Your task to perform on an android device: turn smart compose on in the gmail app Image 0: 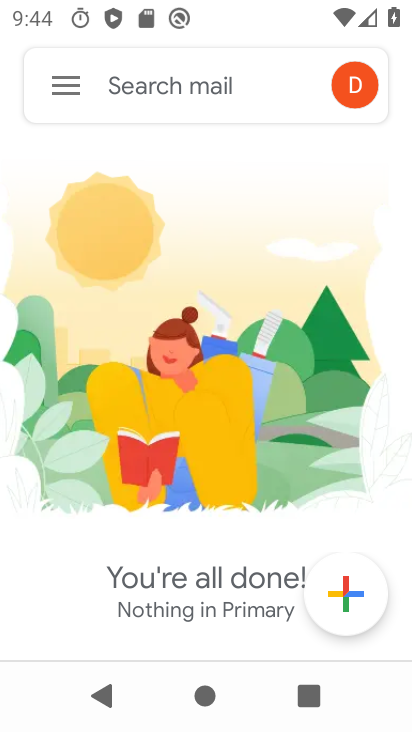
Step 0: drag from (223, 446) to (294, 105)
Your task to perform on an android device: turn smart compose on in the gmail app Image 1: 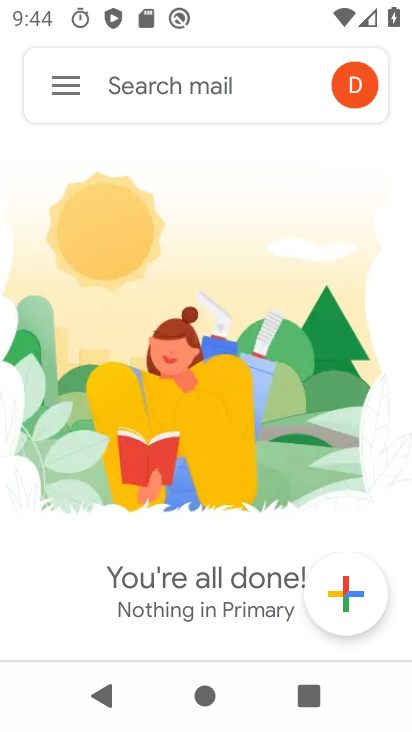
Step 1: drag from (284, 378) to (198, 601)
Your task to perform on an android device: turn smart compose on in the gmail app Image 2: 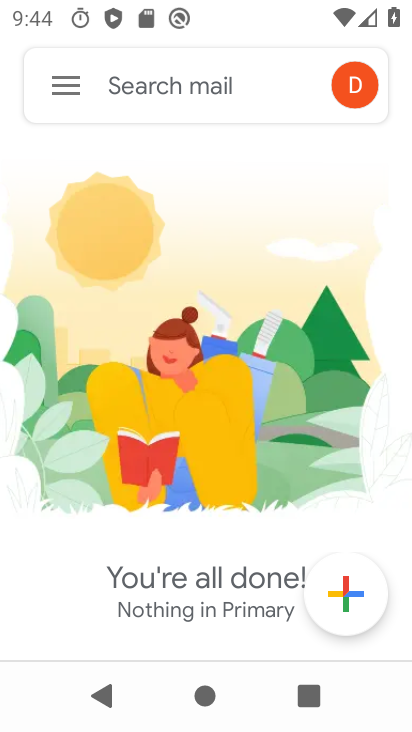
Step 2: click (58, 93)
Your task to perform on an android device: turn smart compose on in the gmail app Image 3: 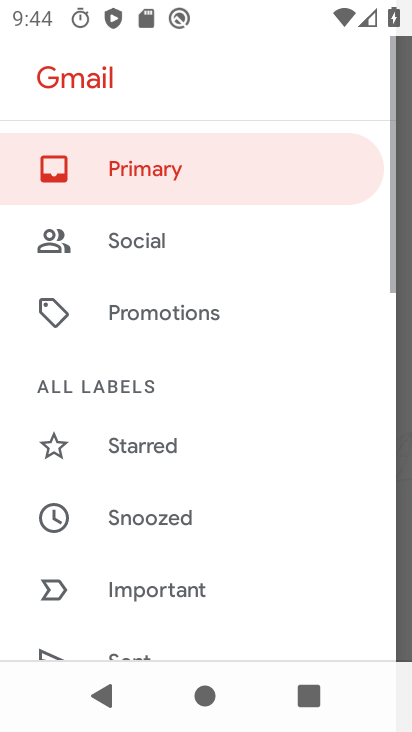
Step 3: drag from (203, 536) to (263, 0)
Your task to perform on an android device: turn smart compose on in the gmail app Image 4: 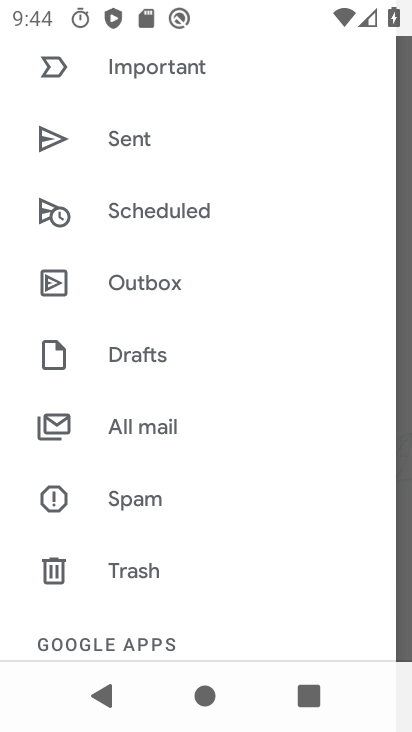
Step 4: drag from (145, 572) to (311, 121)
Your task to perform on an android device: turn smart compose on in the gmail app Image 5: 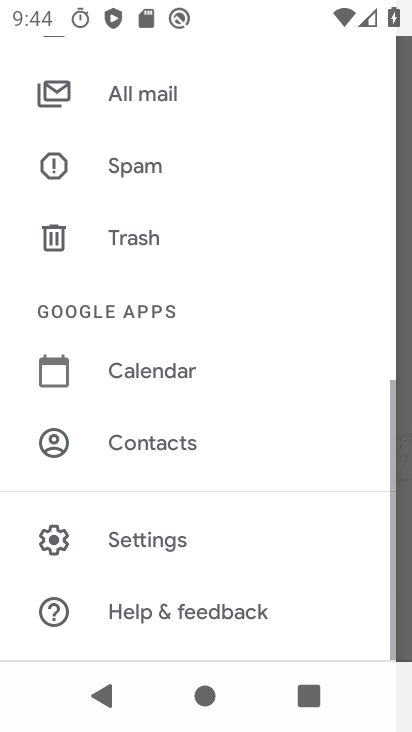
Step 5: click (146, 549)
Your task to perform on an android device: turn smart compose on in the gmail app Image 6: 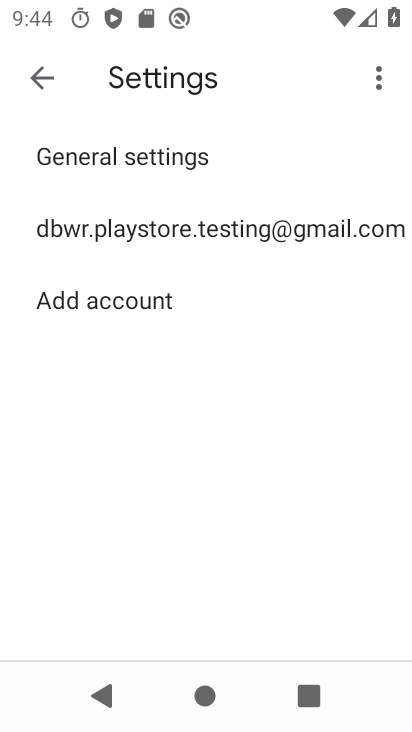
Step 6: drag from (213, 544) to (329, 210)
Your task to perform on an android device: turn smart compose on in the gmail app Image 7: 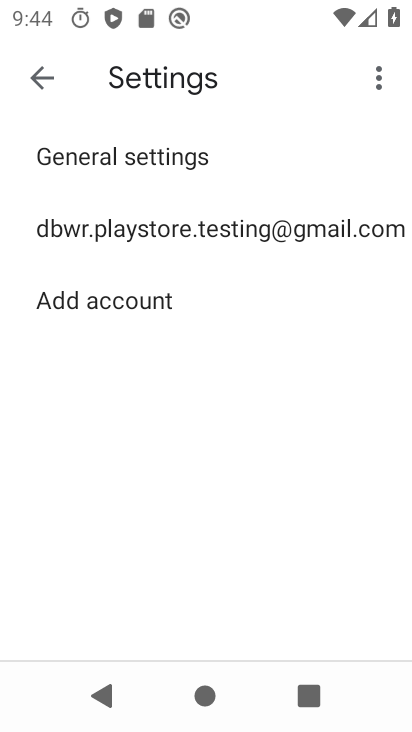
Step 7: click (210, 226)
Your task to perform on an android device: turn smart compose on in the gmail app Image 8: 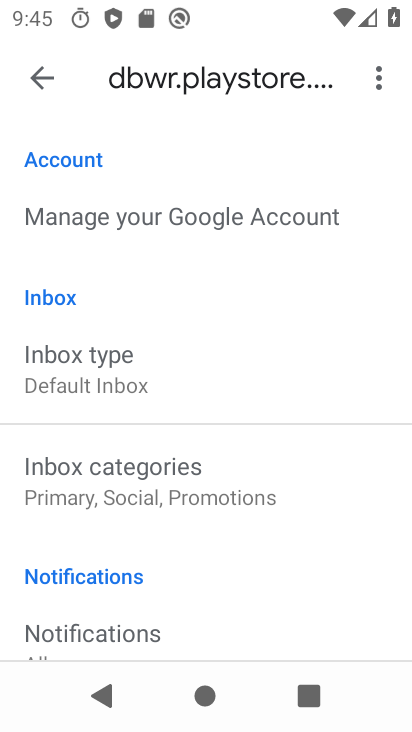
Step 8: task complete